Your task to perform on an android device: turn on the 12-hour format for clock Image 0: 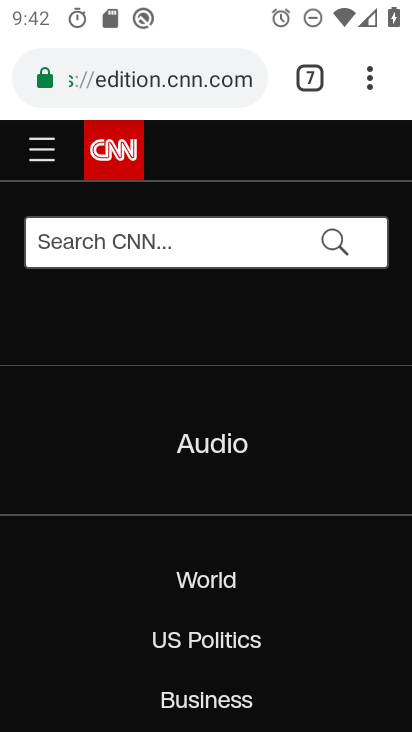
Step 0: press home button
Your task to perform on an android device: turn on the 12-hour format for clock Image 1: 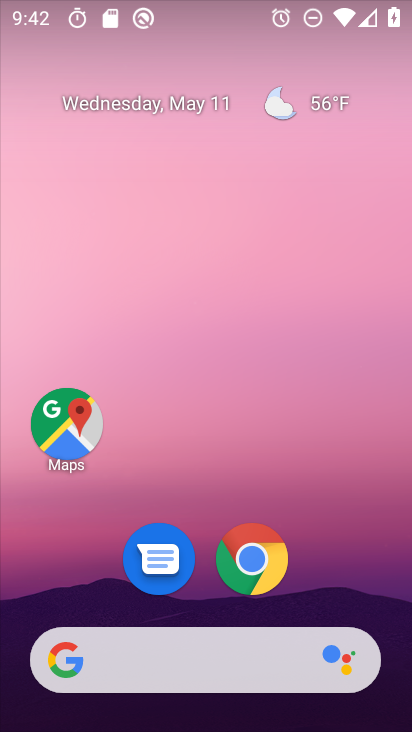
Step 1: drag from (369, 552) to (251, 0)
Your task to perform on an android device: turn on the 12-hour format for clock Image 2: 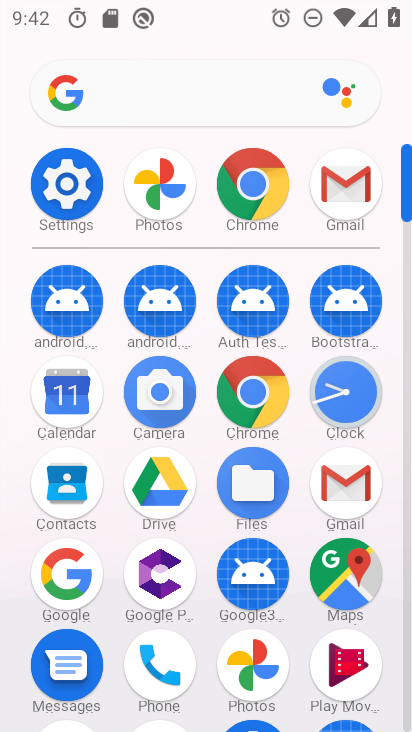
Step 2: click (362, 399)
Your task to perform on an android device: turn on the 12-hour format for clock Image 3: 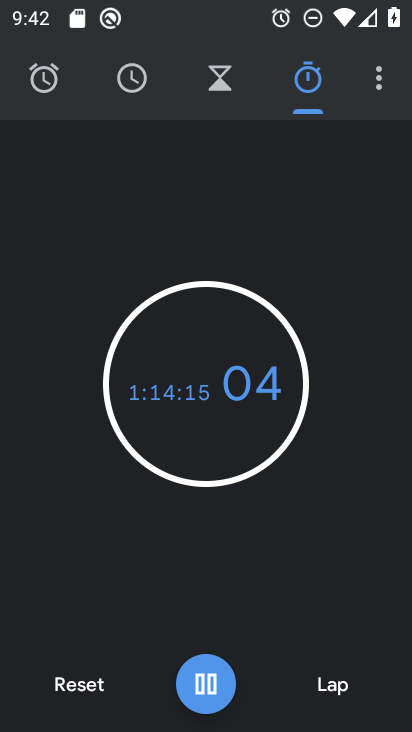
Step 3: click (34, 79)
Your task to perform on an android device: turn on the 12-hour format for clock Image 4: 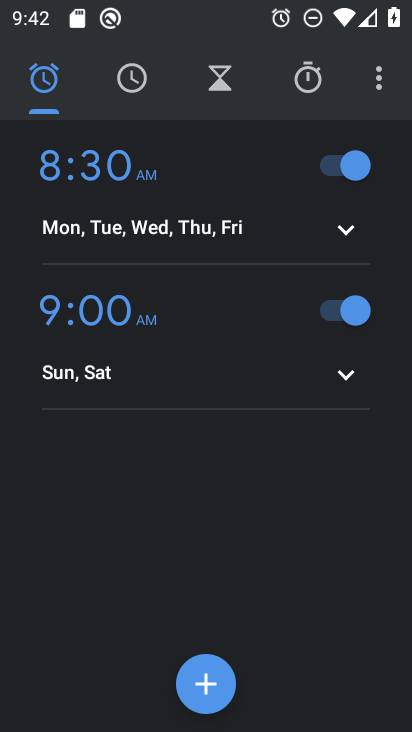
Step 4: click (373, 78)
Your task to perform on an android device: turn on the 12-hour format for clock Image 5: 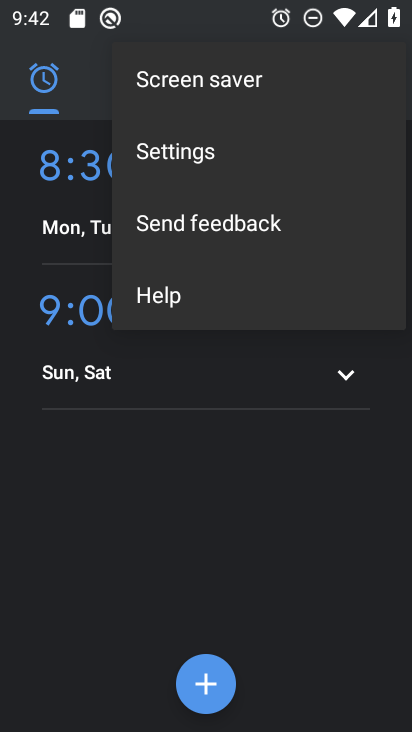
Step 5: click (257, 158)
Your task to perform on an android device: turn on the 12-hour format for clock Image 6: 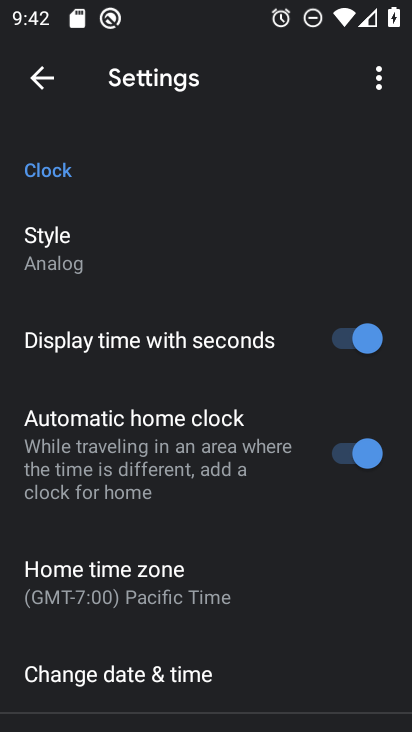
Step 6: drag from (225, 594) to (200, 263)
Your task to perform on an android device: turn on the 12-hour format for clock Image 7: 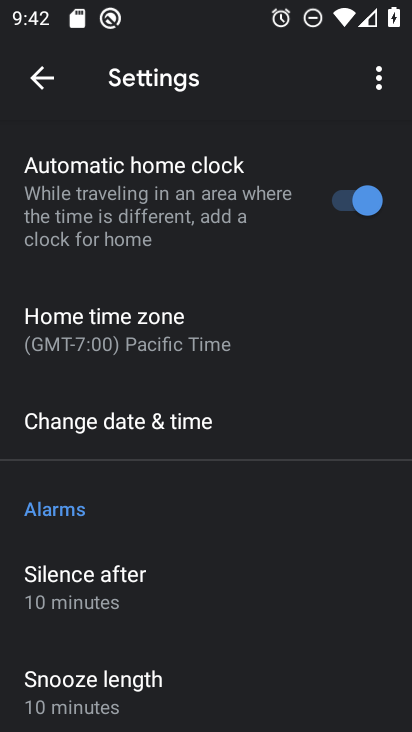
Step 7: click (192, 400)
Your task to perform on an android device: turn on the 12-hour format for clock Image 8: 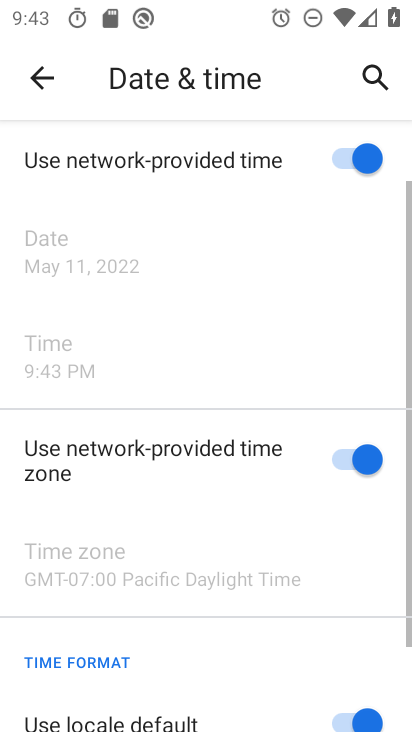
Step 8: drag from (176, 663) to (87, 170)
Your task to perform on an android device: turn on the 12-hour format for clock Image 9: 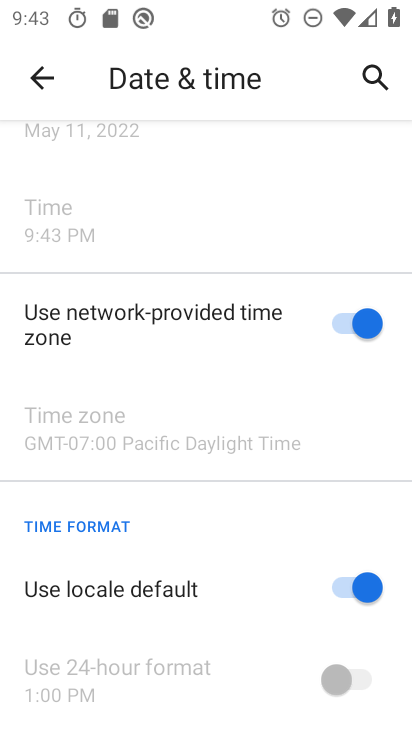
Step 9: click (43, 72)
Your task to perform on an android device: turn on the 12-hour format for clock Image 10: 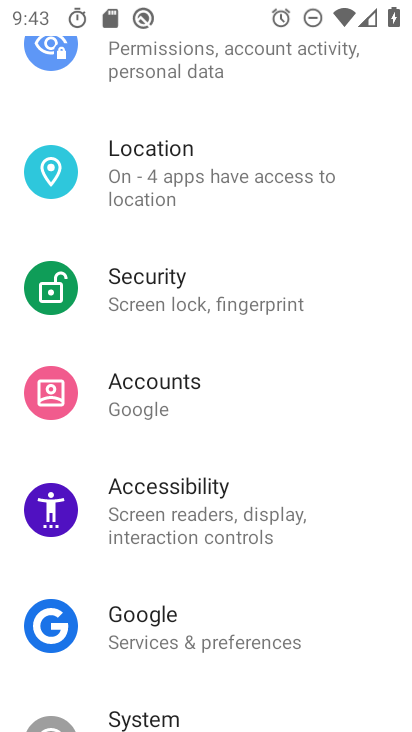
Step 10: task complete